Your task to perform on an android device: turn off data saver in the chrome app Image 0: 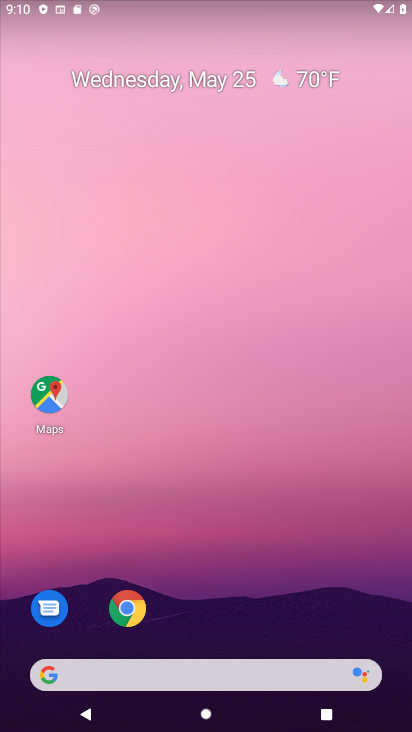
Step 0: click (133, 615)
Your task to perform on an android device: turn off data saver in the chrome app Image 1: 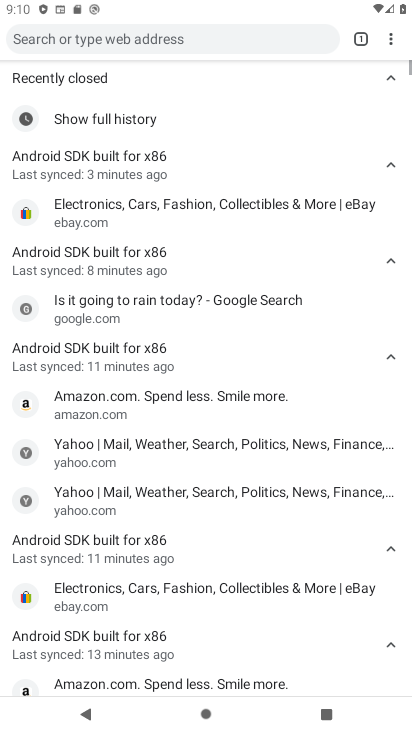
Step 1: click (391, 40)
Your task to perform on an android device: turn off data saver in the chrome app Image 2: 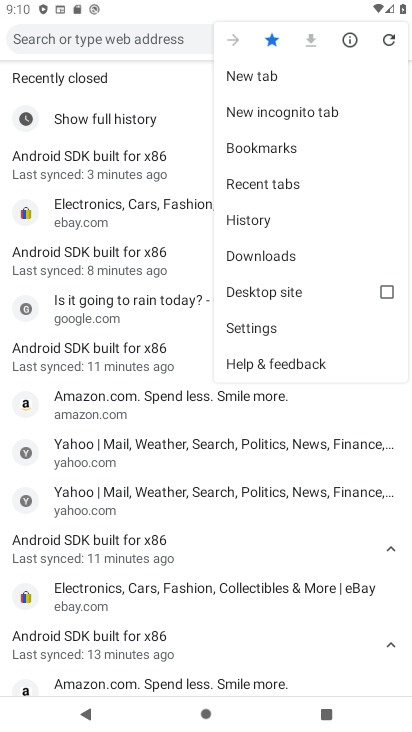
Step 2: click (260, 323)
Your task to perform on an android device: turn off data saver in the chrome app Image 3: 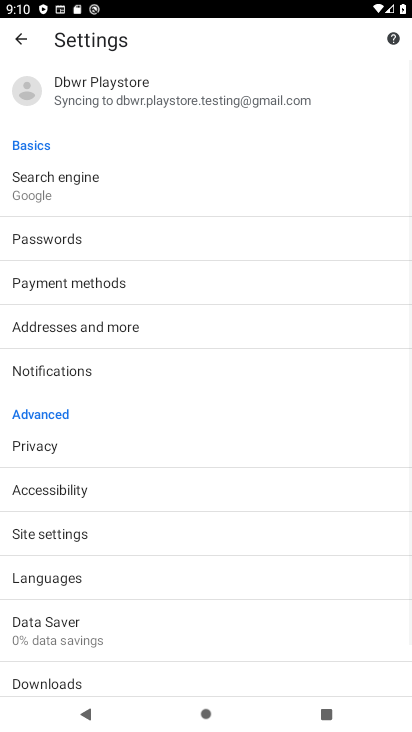
Step 3: click (115, 623)
Your task to perform on an android device: turn off data saver in the chrome app Image 4: 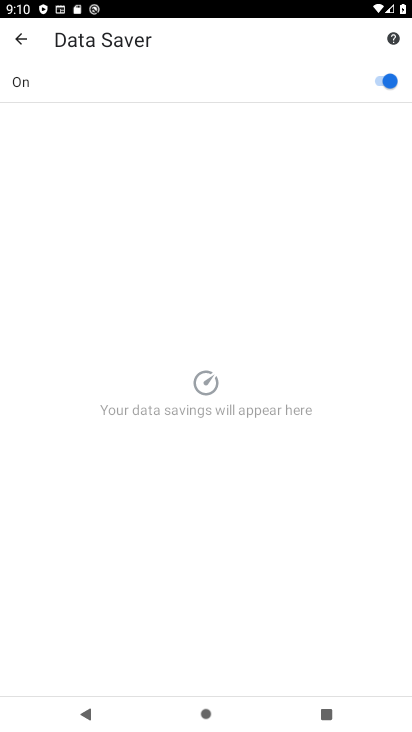
Step 4: click (399, 69)
Your task to perform on an android device: turn off data saver in the chrome app Image 5: 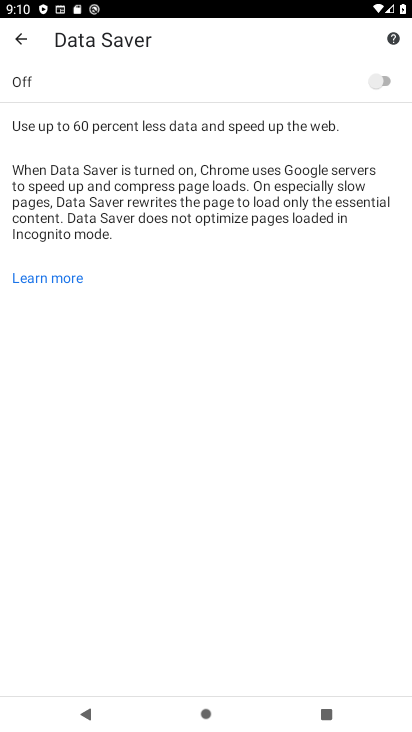
Step 5: task complete